Your task to perform on an android device: Go to sound settings Image 0: 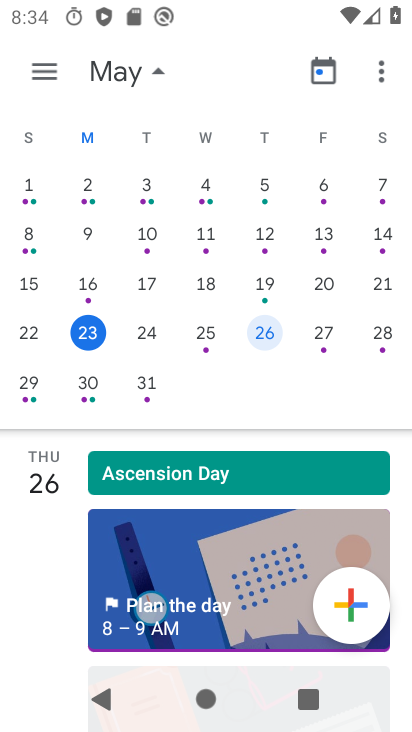
Step 0: press home button
Your task to perform on an android device: Go to sound settings Image 1: 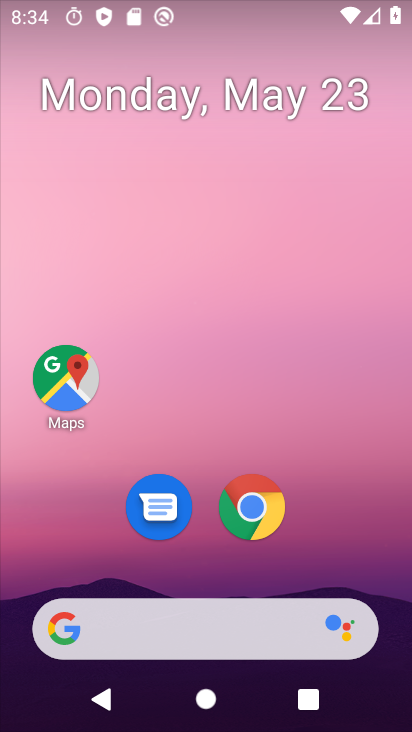
Step 1: drag from (363, 513) to (378, 36)
Your task to perform on an android device: Go to sound settings Image 2: 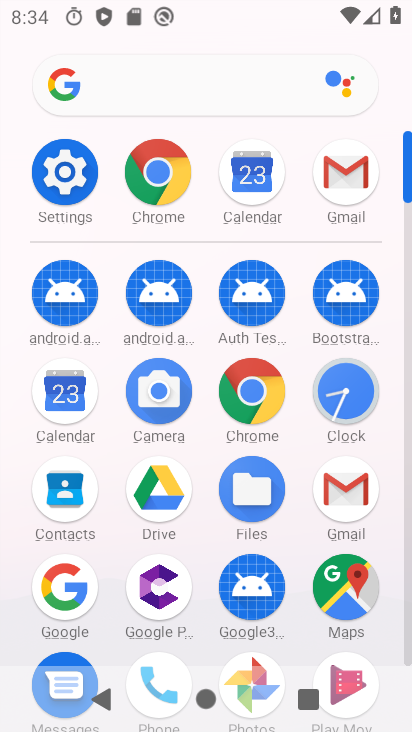
Step 2: click (53, 177)
Your task to perform on an android device: Go to sound settings Image 3: 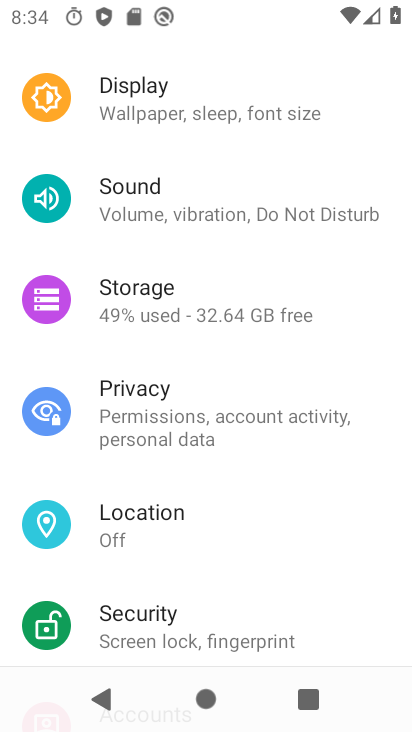
Step 3: click (170, 188)
Your task to perform on an android device: Go to sound settings Image 4: 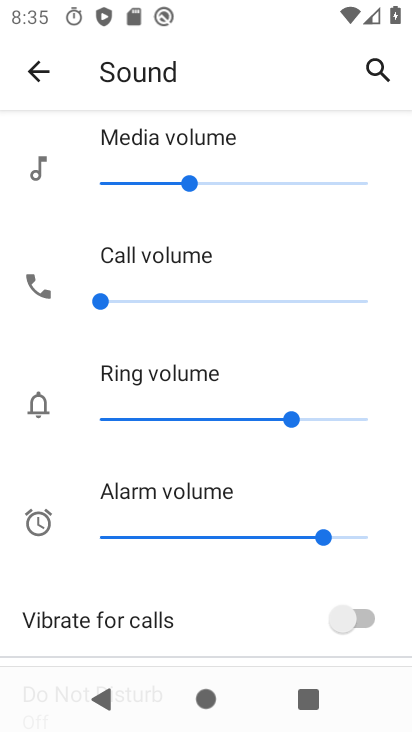
Step 4: task complete